Your task to perform on an android device: Open the web browser Image 0: 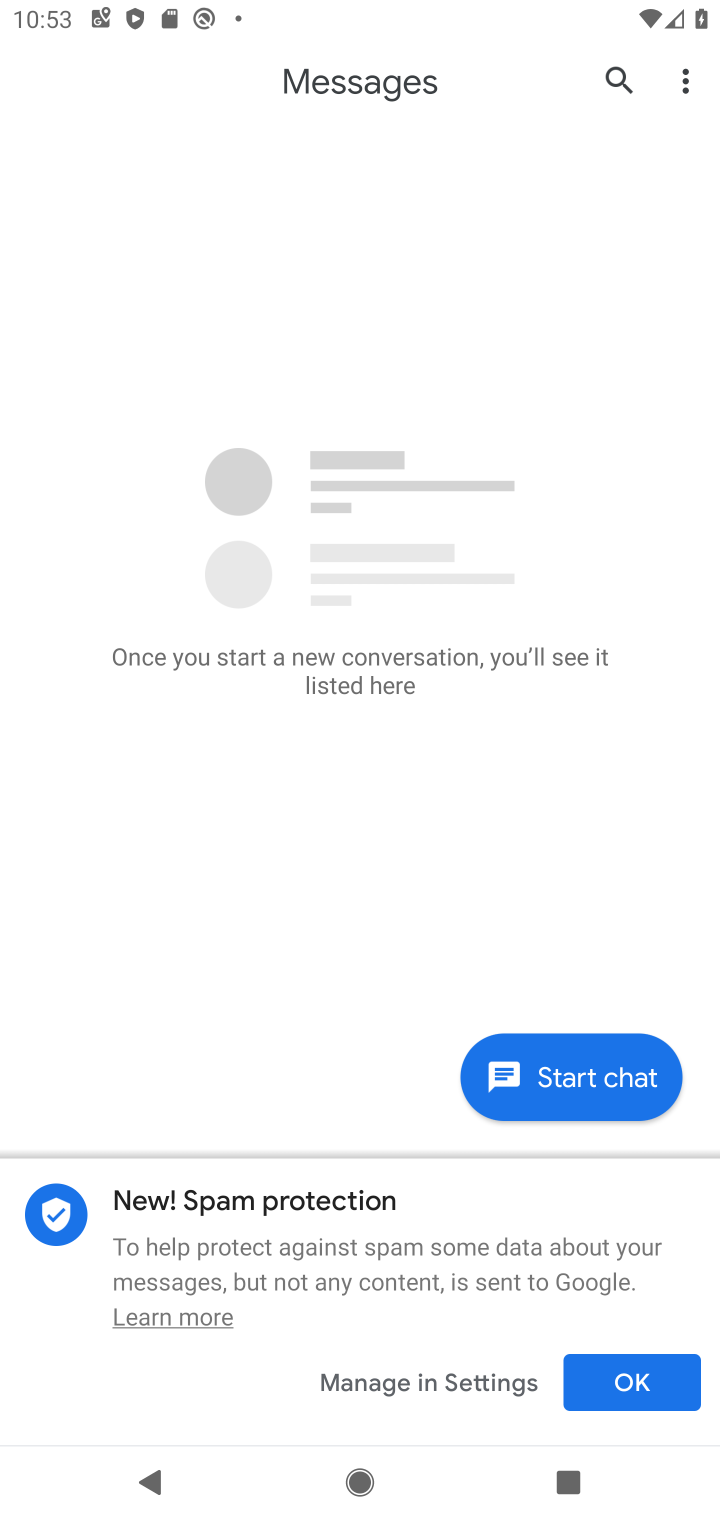
Step 0: press back button
Your task to perform on an android device: Open the web browser Image 1: 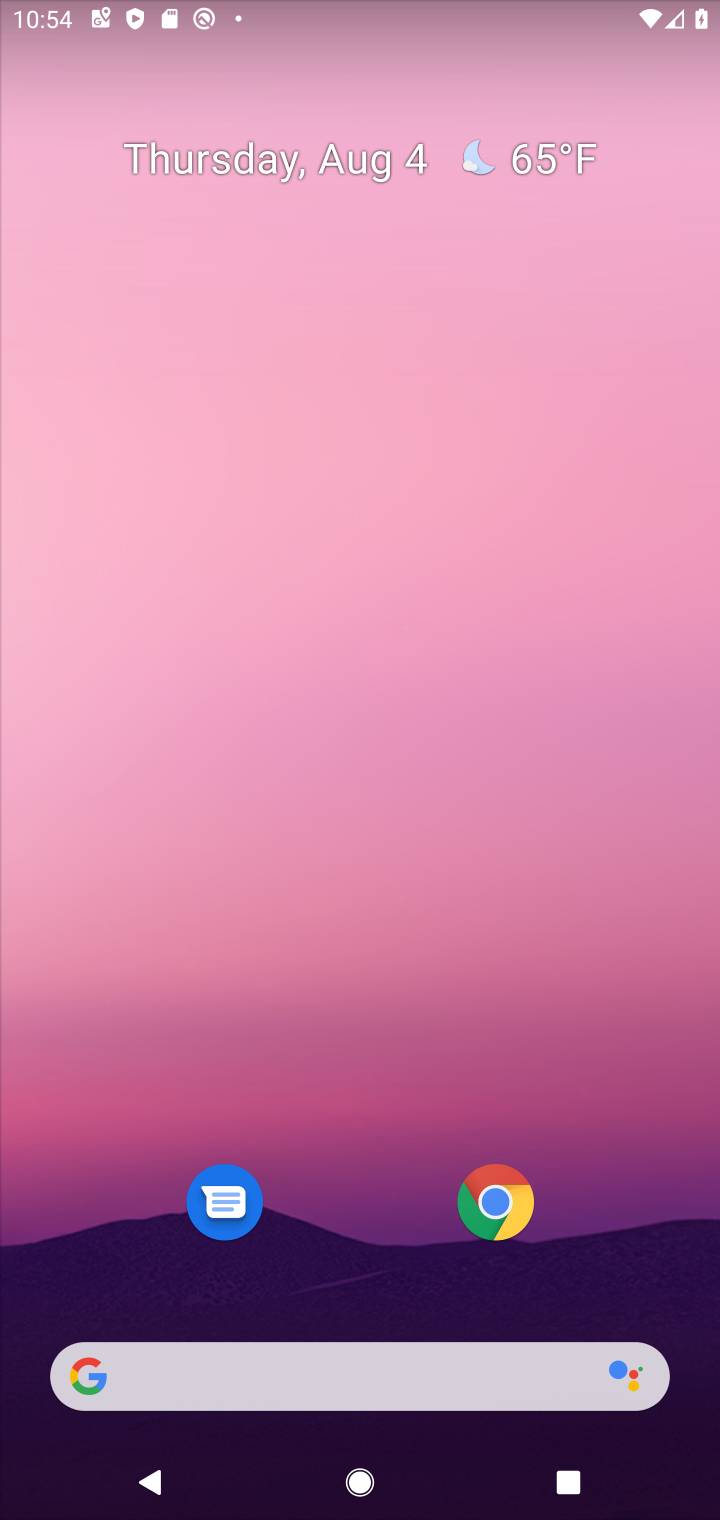
Step 1: click (507, 1217)
Your task to perform on an android device: Open the web browser Image 2: 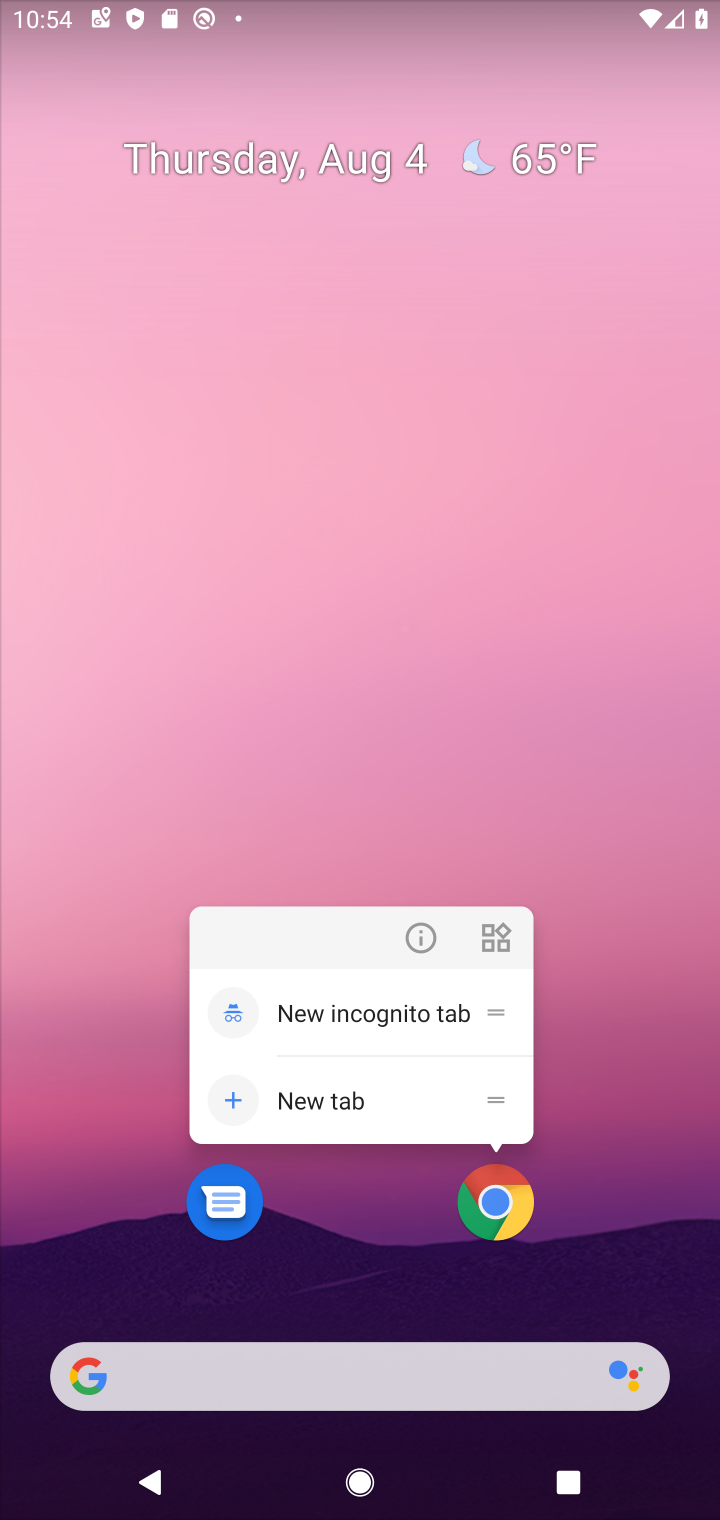
Step 2: click (518, 1202)
Your task to perform on an android device: Open the web browser Image 3: 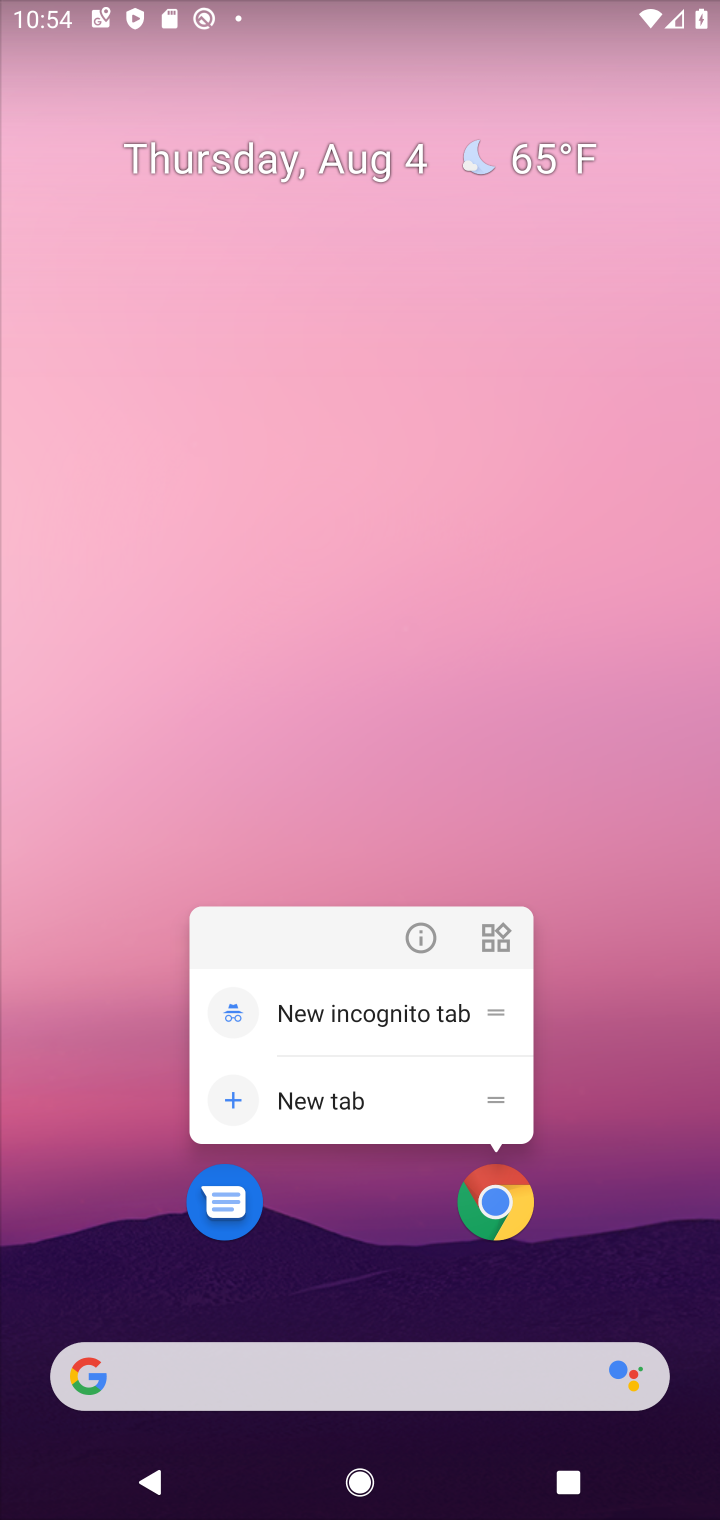
Step 3: click (489, 1205)
Your task to perform on an android device: Open the web browser Image 4: 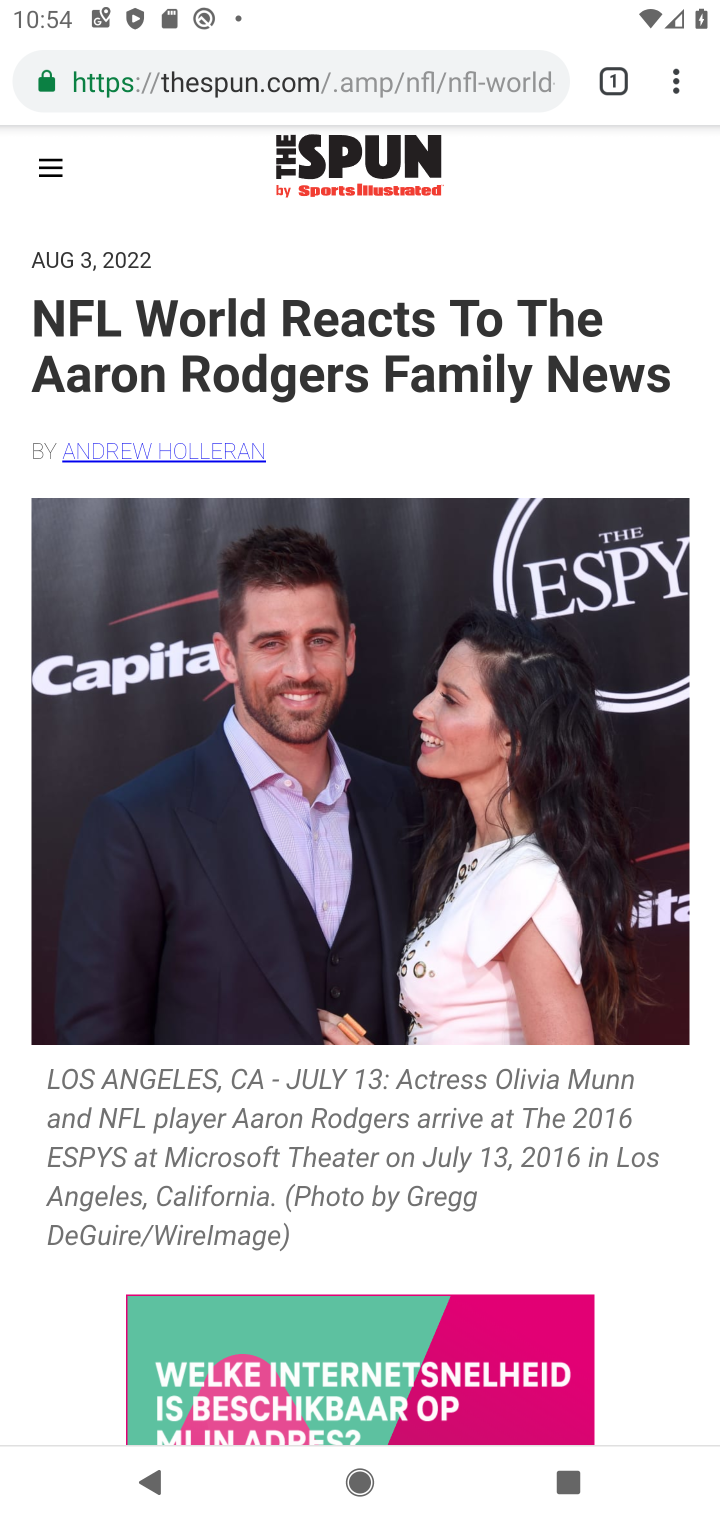
Step 4: task complete